Your task to perform on an android device: delete location history Image 0: 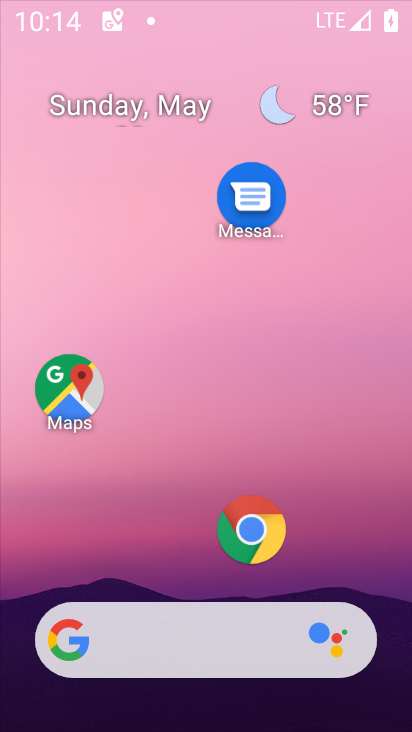
Step 0: click (211, 187)
Your task to perform on an android device: delete location history Image 1: 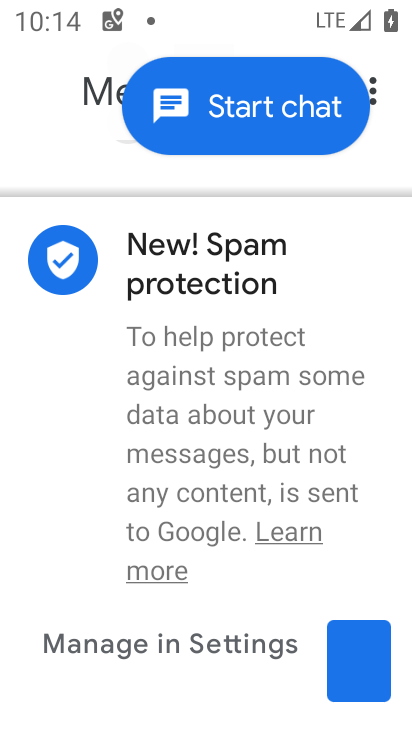
Step 1: press home button
Your task to perform on an android device: delete location history Image 2: 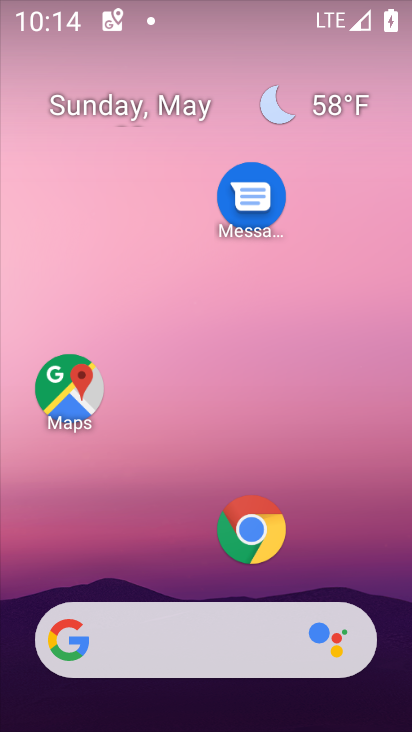
Step 2: drag from (171, 560) to (171, 14)
Your task to perform on an android device: delete location history Image 3: 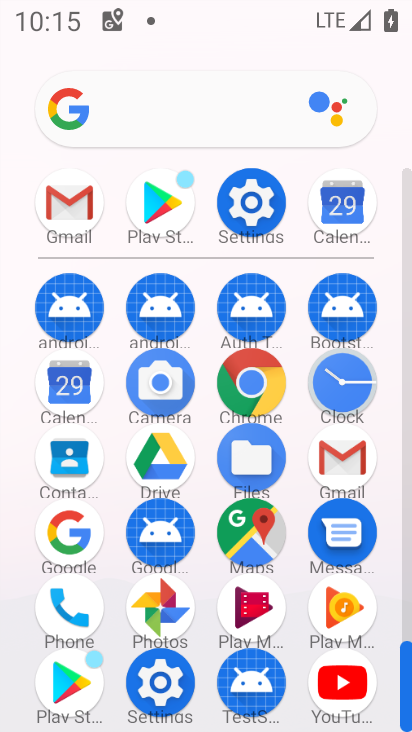
Step 3: click (266, 530)
Your task to perform on an android device: delete location history Image 4: 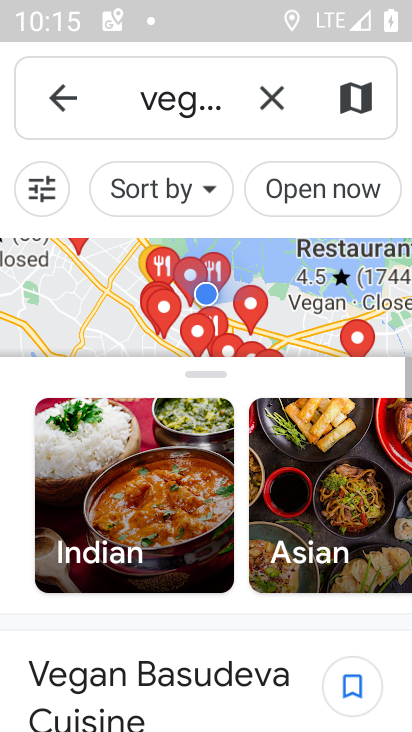
Step 4: click (59, 108)
Your task to perform on an android device: delete location history Image 5: 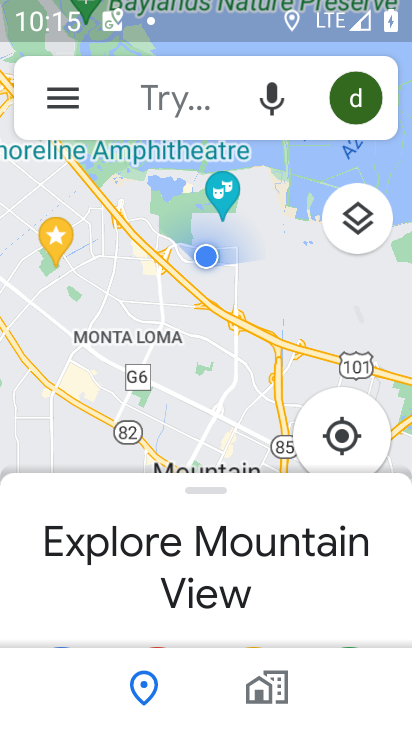
Step 5: click (61, 106)
Your task to perform on an android device: delete location history Image 6: 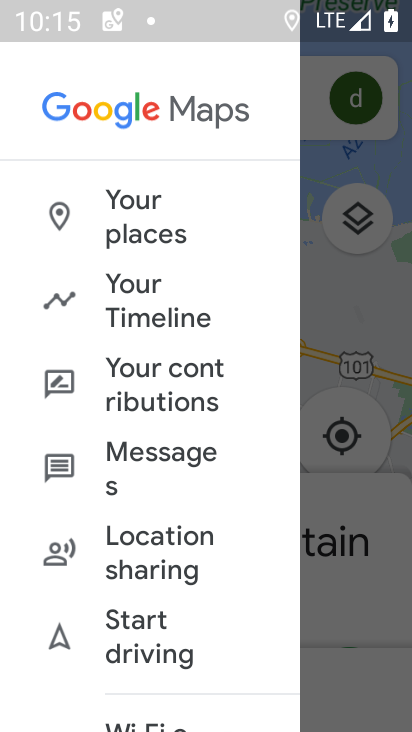
Step 6: click (173, 303)
Your task to perform on an android device: delete location history Image 7: 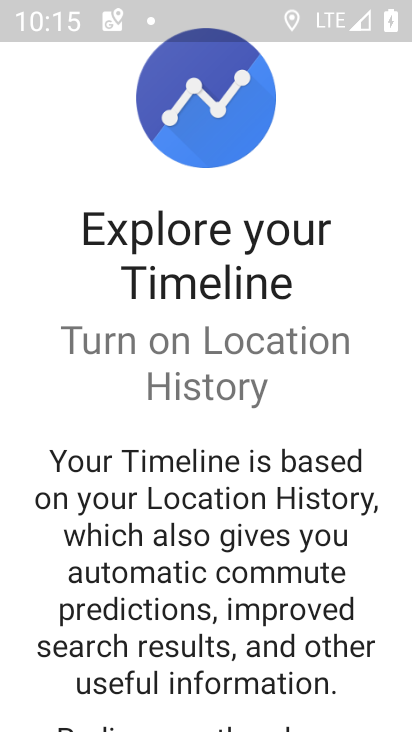
Step 7: drag from (232, 577) to (269, 83)
Your task to perform on an android device: delete location history Image 8: 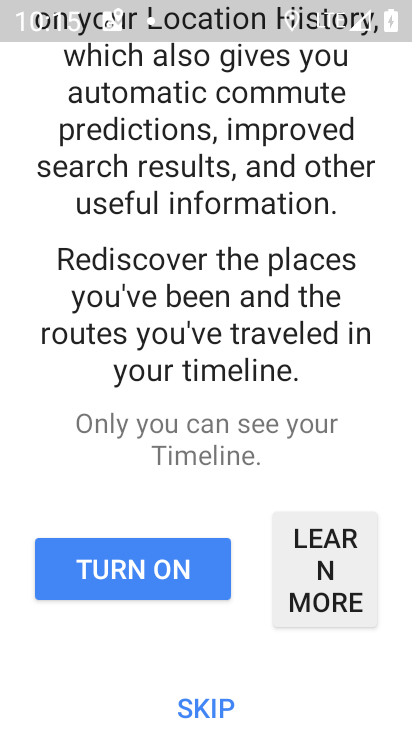
Step 8: click (219, 709)
Your task to perform on an android device: delete location history Image 9: 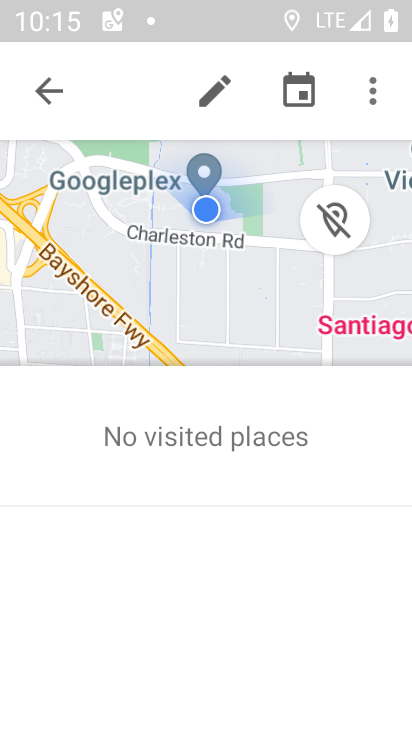
Step 9: click (369, 82)
Your task to perform on an android device: delete location history Image 10: 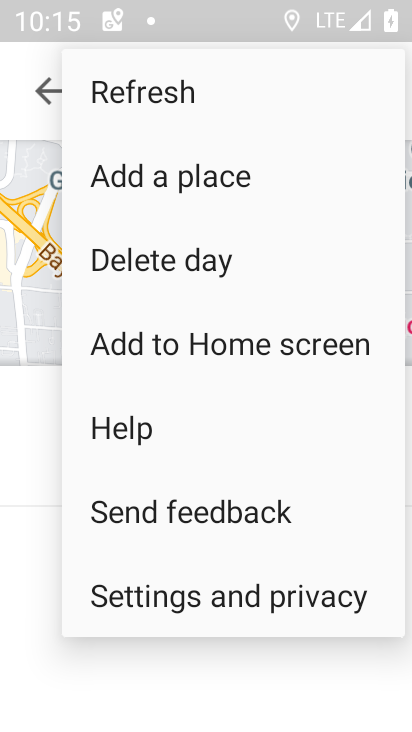
Step 10: click (206, 595)
Your task to perform on an android device: delete location history Image 11: 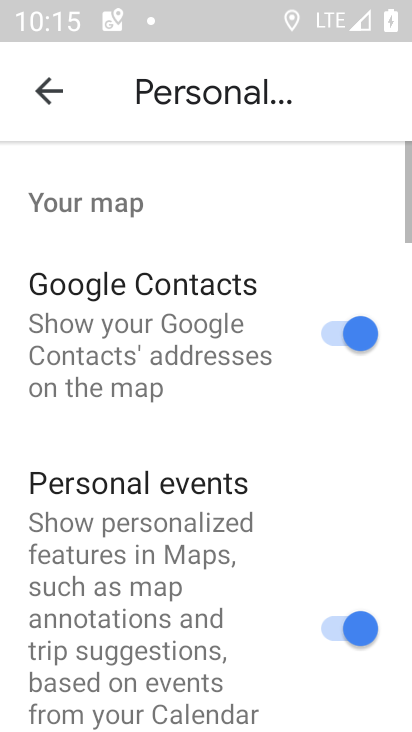
Step 11: drag from (210, 641) to (256, 12)
Your task to perform on an android device: delete location history Image 12: 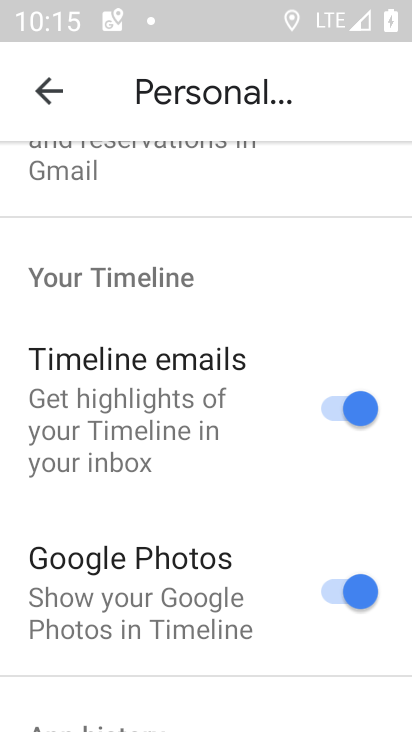
Step 12: drag from (201, 634) to (216, 86)
Your task to perform on an android device: delete location history Image 13: 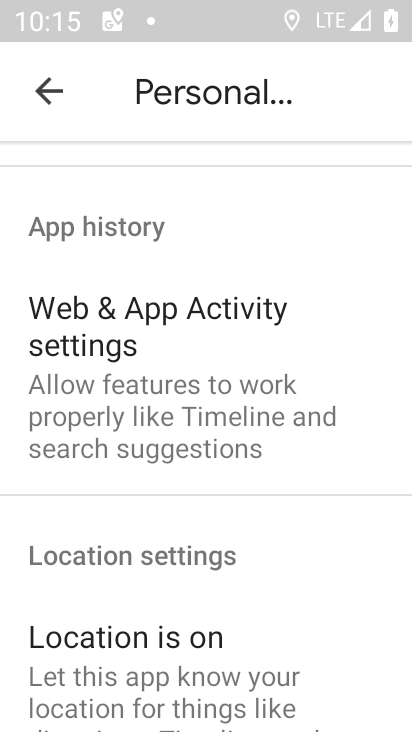
Step 13: drag from (169, 601) to (219, 94)
Your task to perform on an android device: delete location history Image 14: 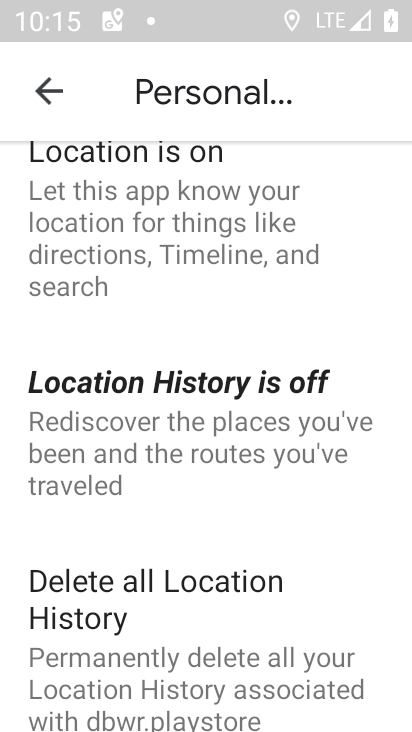
Step 14: click (143, 610)
Your task to perform on an android device: delete location history Image 15: 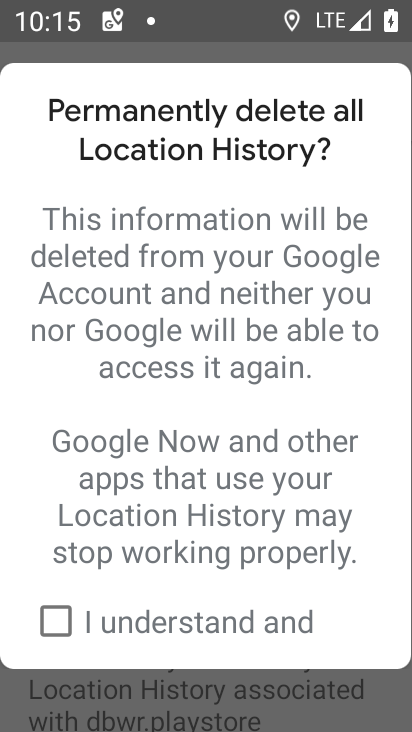
Step 15: drag from (227, 588) to (277, 141)
Your task to perform on an android device: delete location history Image 16: 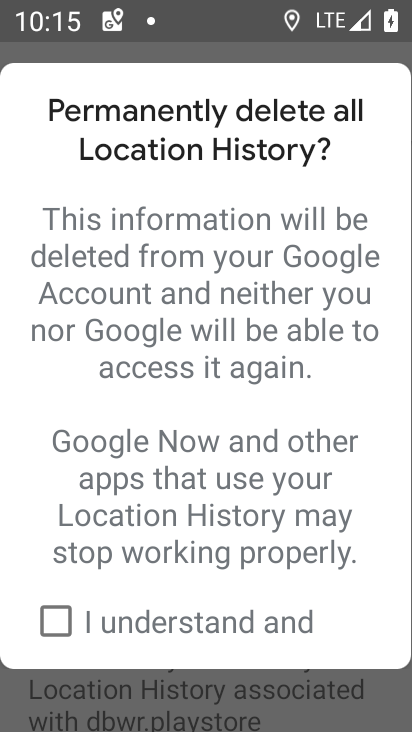
Step 16: drag from (164, 620) to (166, 294)
Your task to perform on an android device: delete location history Image 17: 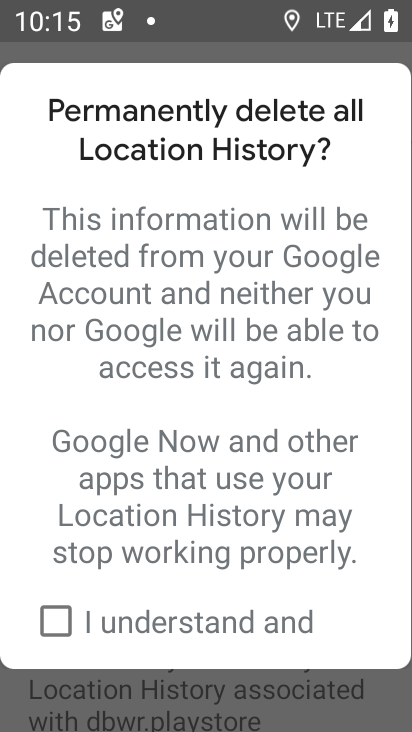
Step 17: click (54, 618)
Your task to perform on an android device: delete location history Image 18: 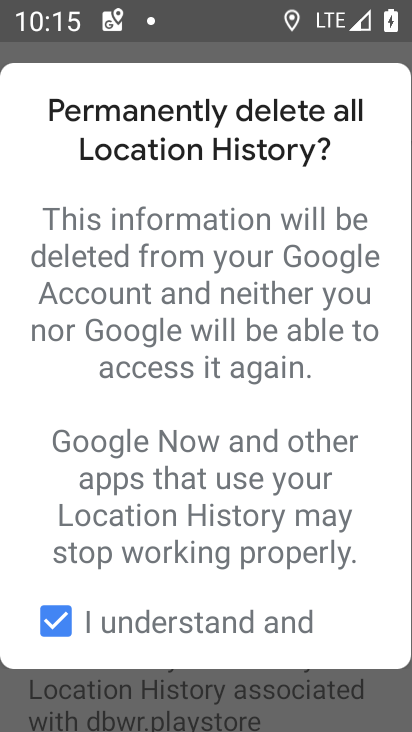
Step 18: task complete